Your task to perform on an android device: open chrome and create a bookmark for the current page Image 0: 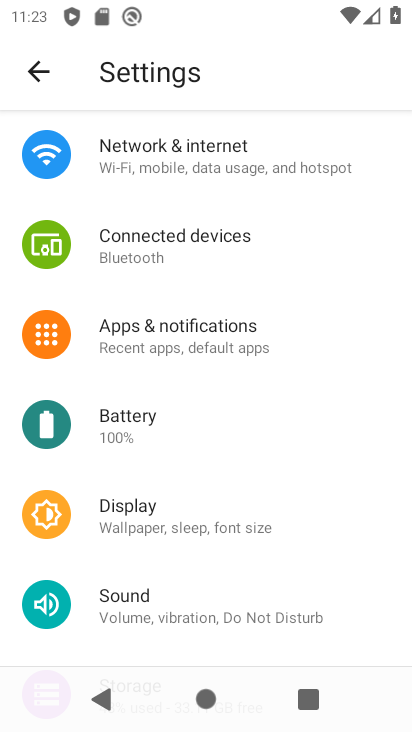
Step 0: press home button
Your task to perform on an android device: open chrome and create a bookmark for the current page Image 1: 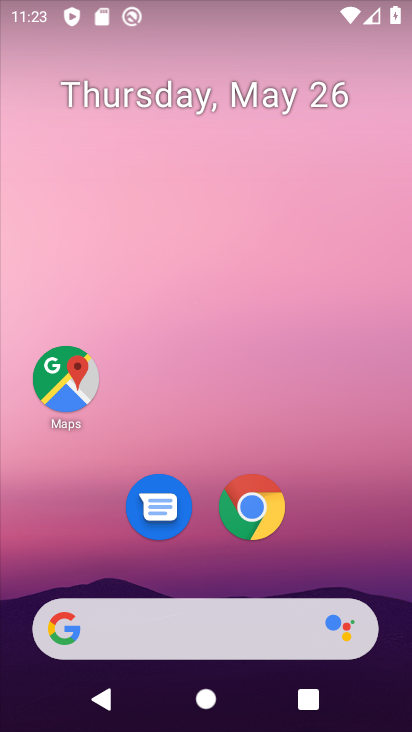
Step 1: click (249, 506)
Your task to perform on an android device: open chrome and create a bookmark for the current page Image 2: 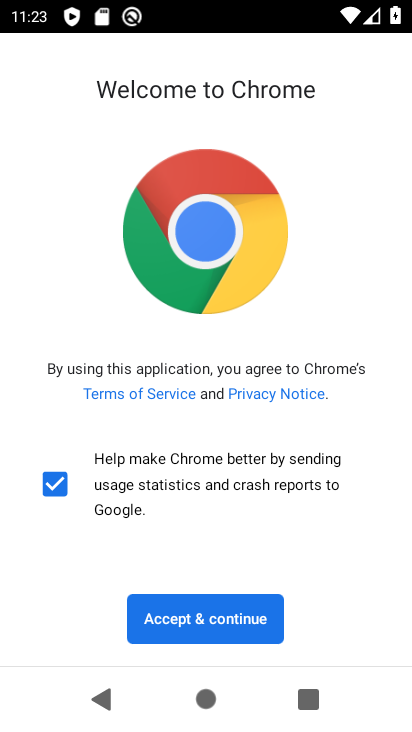
Step 2: click (212, 618)
Your task to perform on an android device: open chrome and create a bookmark for the current page Image 3: 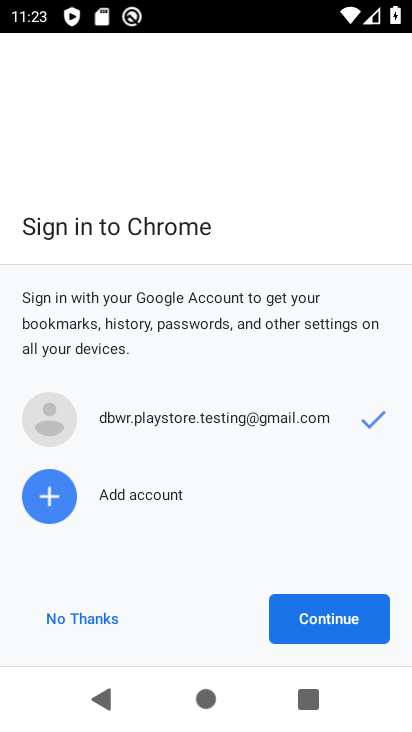
Step 3: click (296, 622)
Your task to perform on an android device: open chrome and create a bookmark for the current page Image 4: 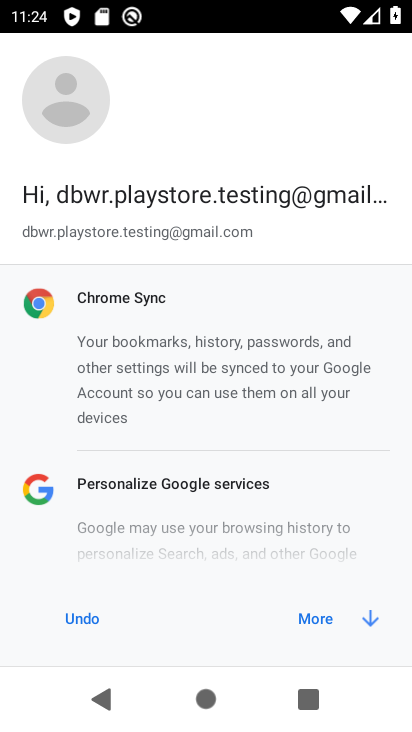
Step 4: click (298, 618)
Your task to perform on an android device: open chrome and create a bookmark for the current page Image 5: 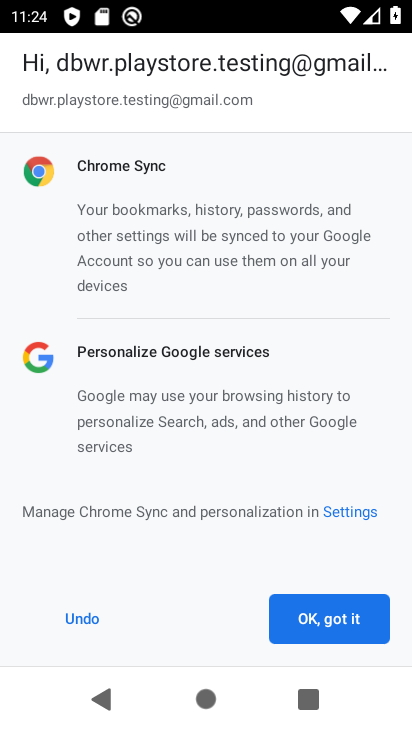
Step 5: click (298, 618)
Your task to perform on an android device: open chrome and create a bookmark for the current page Image 6: 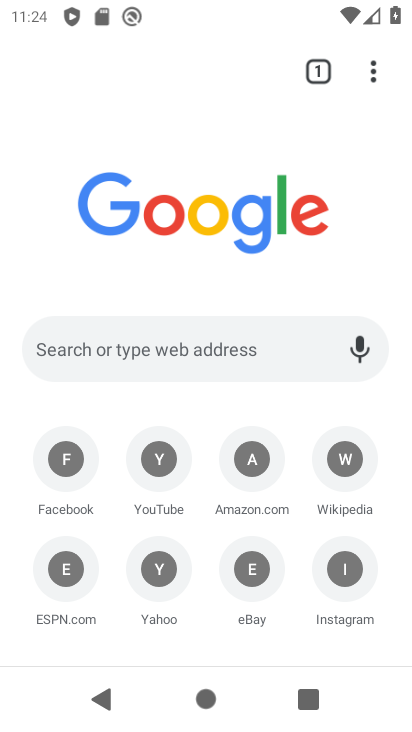
Step 6: drag from (379, 62) to (116, 173)
Your task to perform on an android device: open chrome and create a bookmark for the current page Image 7: 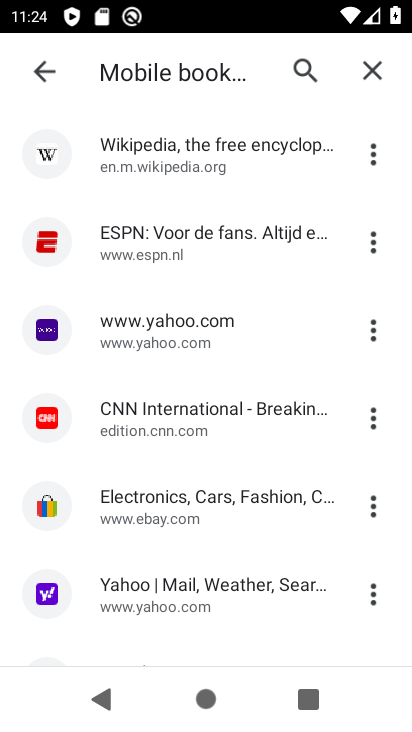
Step 7: click (44, 63)
Your task to perform on an android device: open chrome and create a bookmark for the current page Image 8: 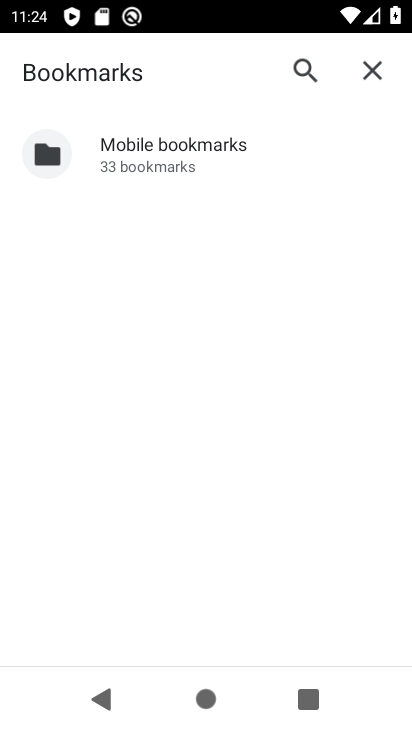
Step 8: click (373, 66)
Your task to perform on an android device: open chrome and create a bookmark for the current page Image 9: 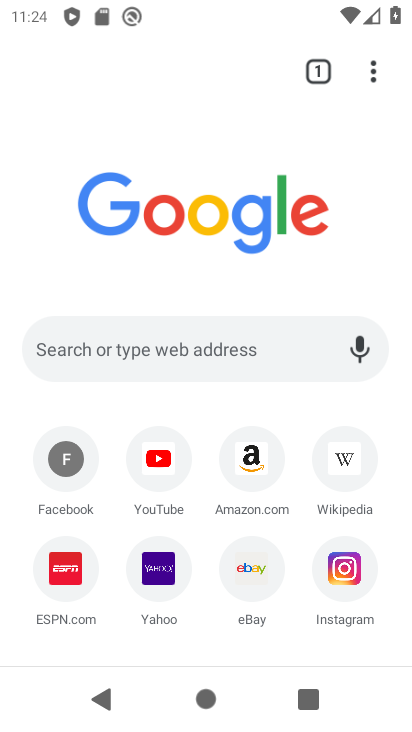
Step 9: drag from (373, 66) to (168, 84)
Your task to perform on an android device: open chrome and create a bookmark for the current page Image 10: 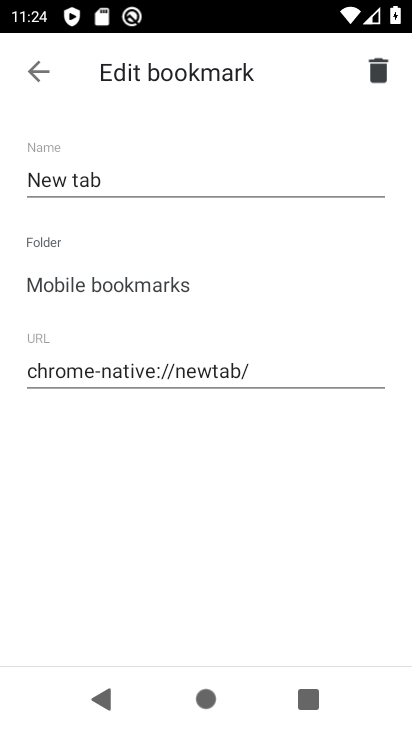
Step 10: click (47, 68)
Your task to perform on an android device: open chrome and create a bookmark for the current page Image 11: 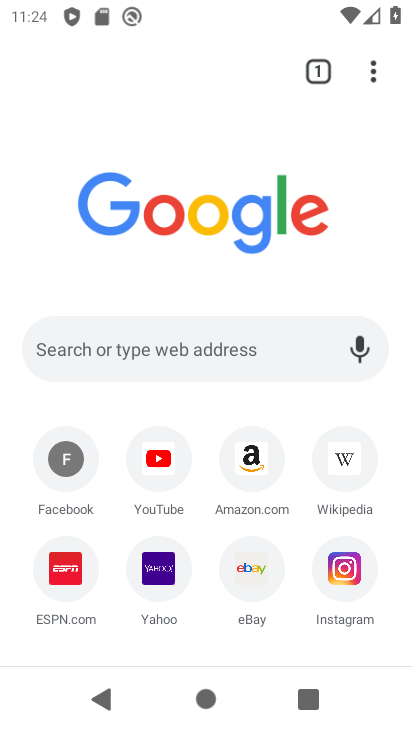
Step 11: task complete